Your task to perform on an android device: change the clock display to analog Image 0: 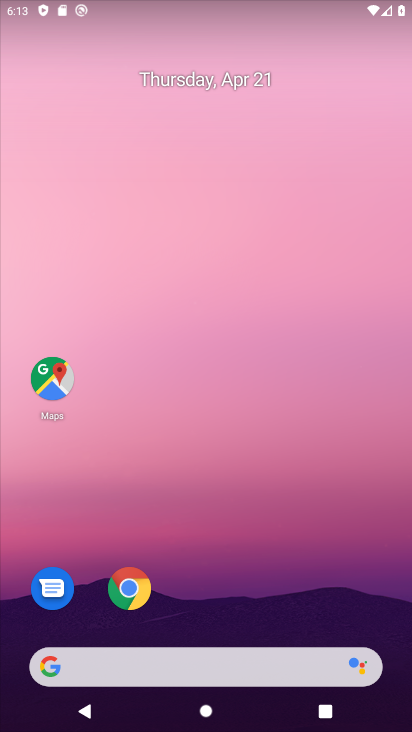
Step 0: drag from (266, 569) to (322, 325)
Your task to perform on an android device: change the clock display to analog Image 1: 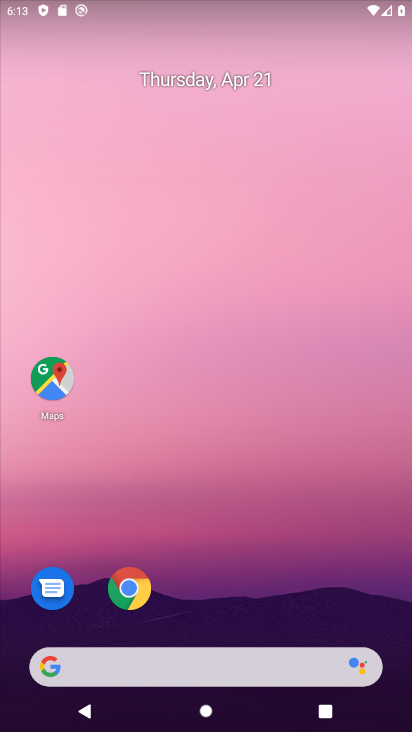
Step 1: drag from (289, 388) to (329, 53)
Your task to perform on an android device: change the clock display to analog Image 2: 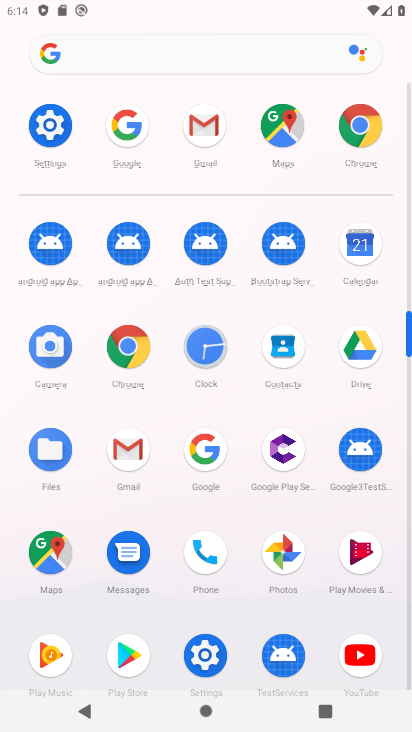
Step 2: drag from (298, 419) to (220, 633)
Your task to perform on an android device: change the clock display to analog Image 3: 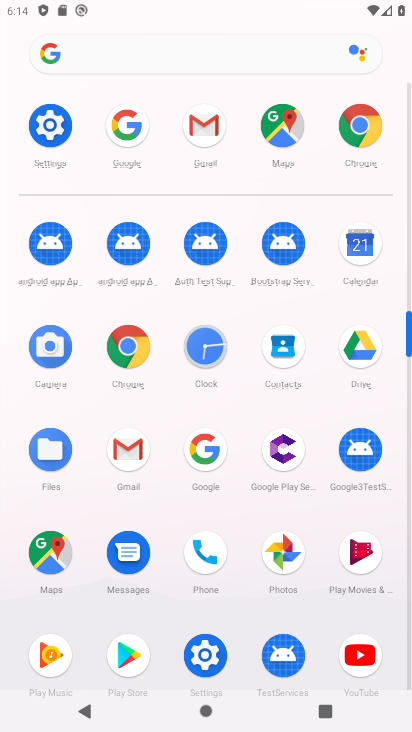
Step 3: click (210, 370)
Your task to perform on an android device: change the clock display to analog Image 4: 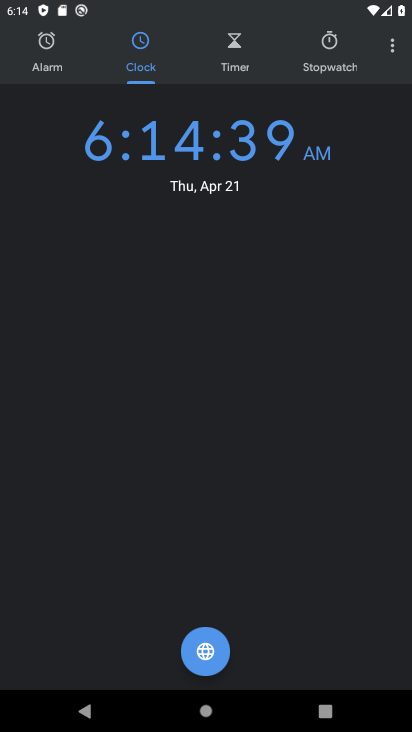
Step 4: click (404, 53)
Your task to perform on an android device: change the clock display to analog Image 5: 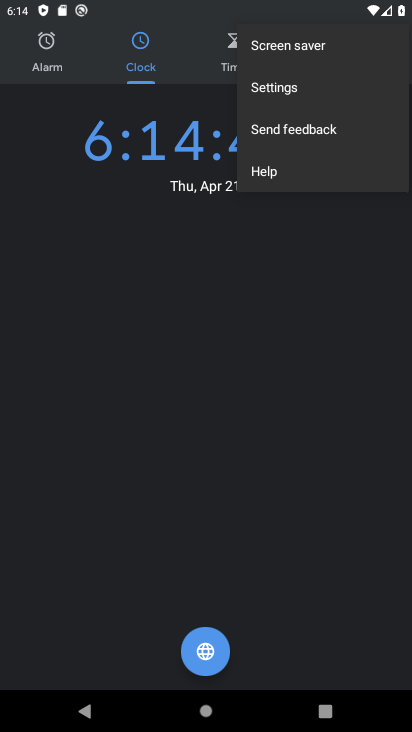
Step 5: click (304, 90)
Your task to perform on an android device: change the clock display to analog Image 6: 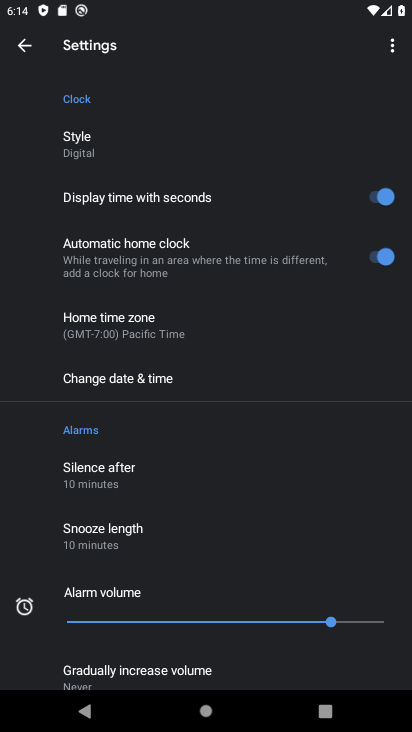
Step 6: click (65, 162)
Your task to perform on an android device: change the clock display to analog Image 7: 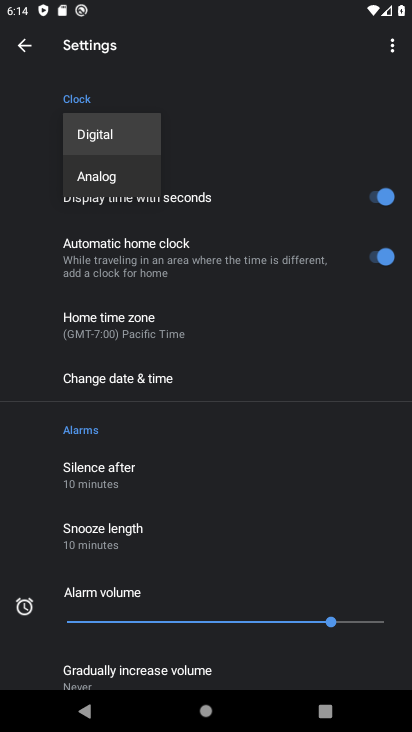
Step 7: click (140, 185)
Your task to perform on an android device: change the clock display to analog Image 8: 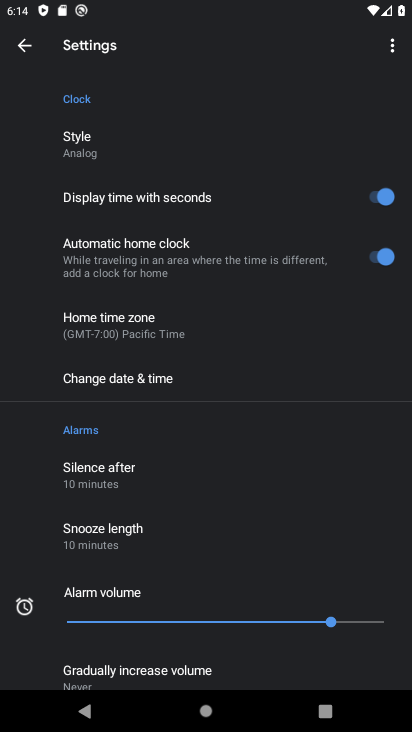
Step 8: task complete